Your task to perform on an android device: Open the map Image 0: 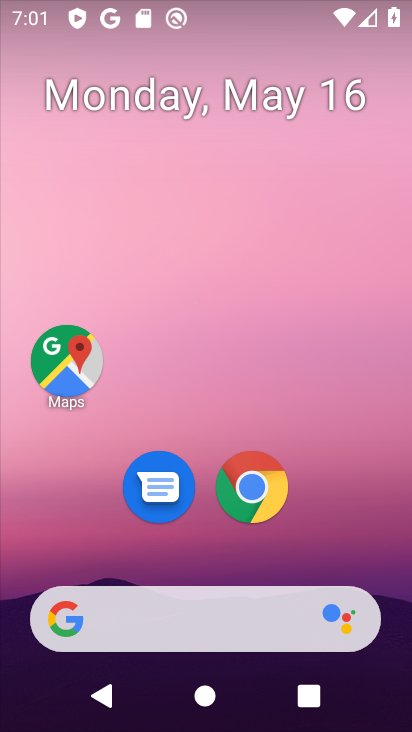
Step 0: click (36, 361)
Your task to perform on an android device: Open the map Image 1: 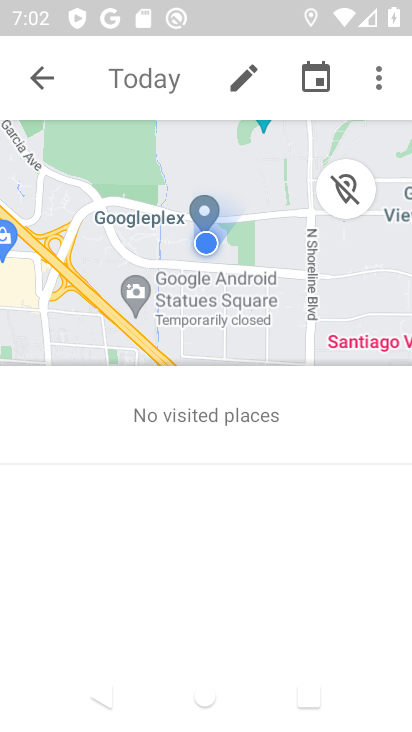
Step 1: task complete